Your task to perform on an android device: What is the recent news? Image 0: 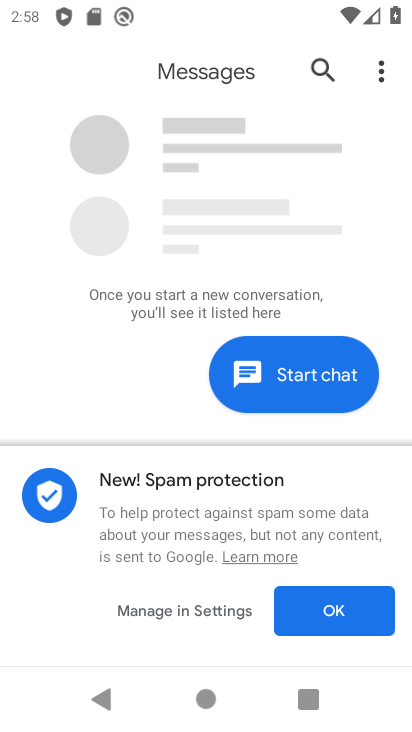
Step 0: press home button
Your task to perform on an android device: What is the recent news? Image 1: 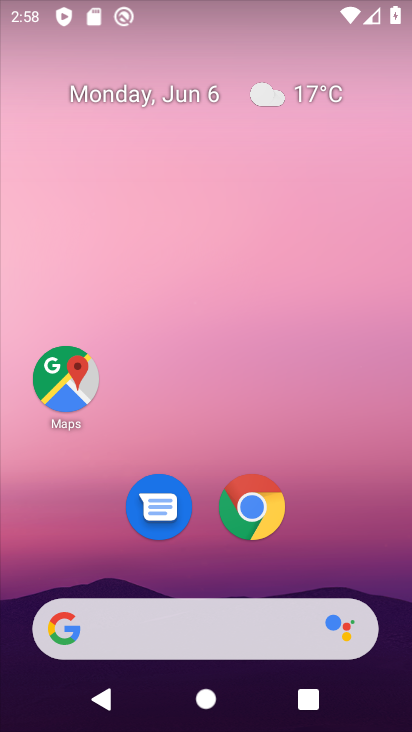
Step 1: click (182, 643)
Your task to perform on an android device: What is the recent news? Image 2: 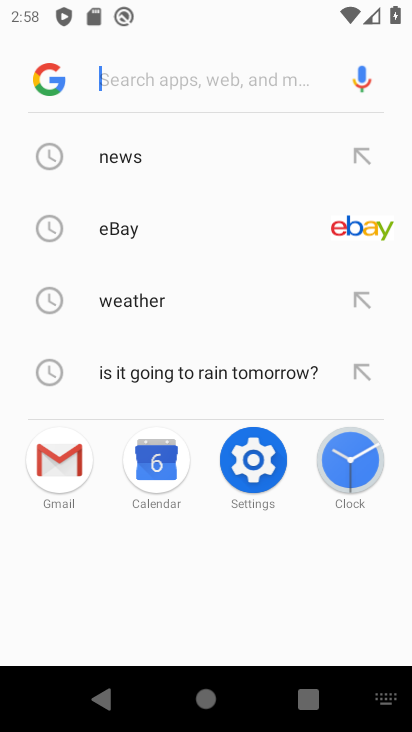
Step 2: type "recent news?"
Your task to perform on an android device: What is the recent news? Image 3: 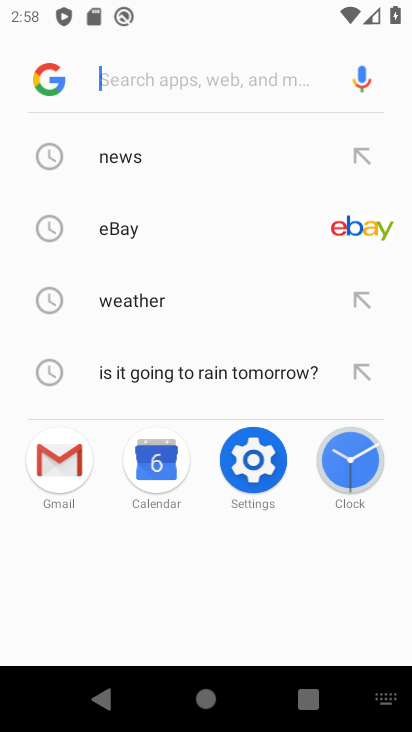
Step 3: click (181, 83)
Your task to perform on an android device: What is the recent news? Image 4: 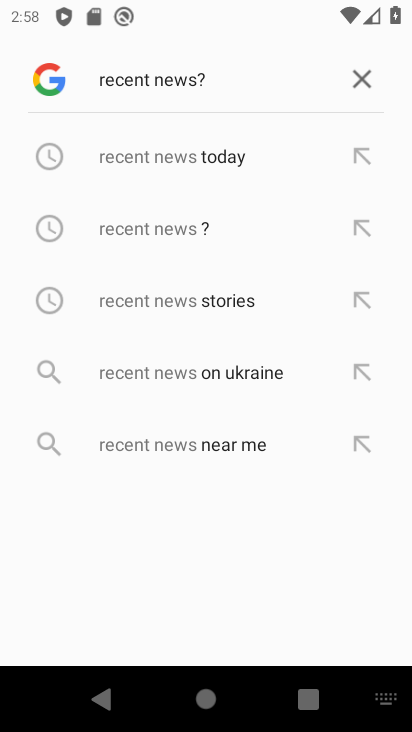
Step 4: click (179, 216)
Your task to perform on an android device: What is the recent news? Image 5: 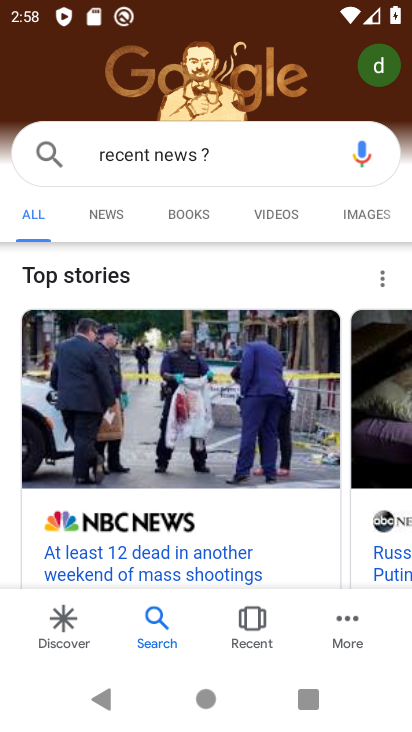
Step 5: task complete